Your task to perform on an android device: Search for vegetarian restaurants on Maps Image 0: 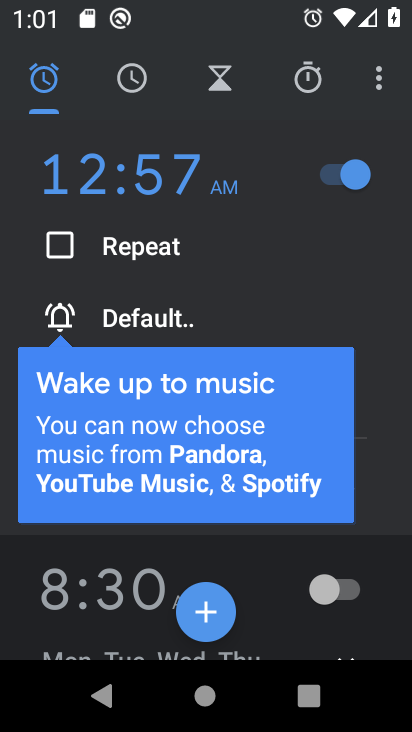
Step 0: press home button
Your task to perform on an android device: Search for vegetarian restaurants on Maps Image 1: 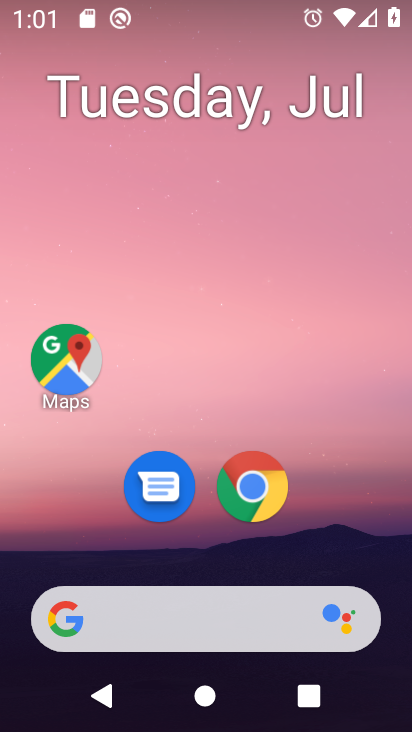
Step 1: drag from (378, 555) to (376, 133)
Your task to perform on an android device: Search for vegetarian restaurants on Maps Image 2: 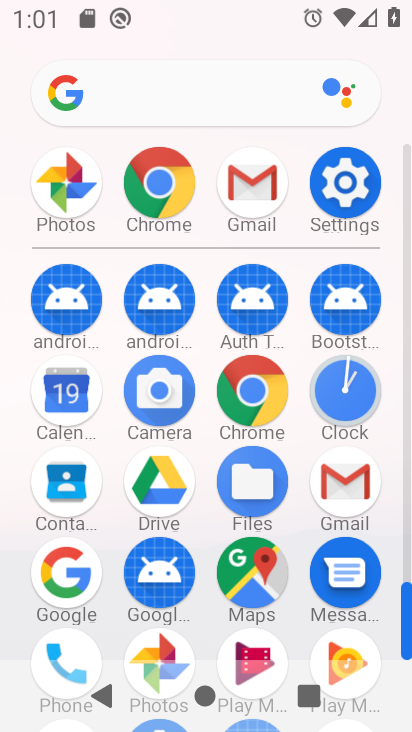
Step 2: click (270, 568)
Your task to perform on an android device: Search for vegetarian restaurants on Maps Image 3: 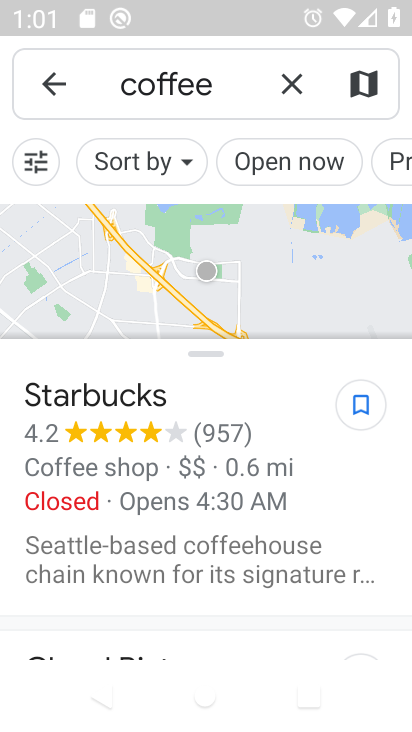
Step 3: press back button
Your task to perform on an android device: Search for vegetarian restaurants on Maps Image 4: 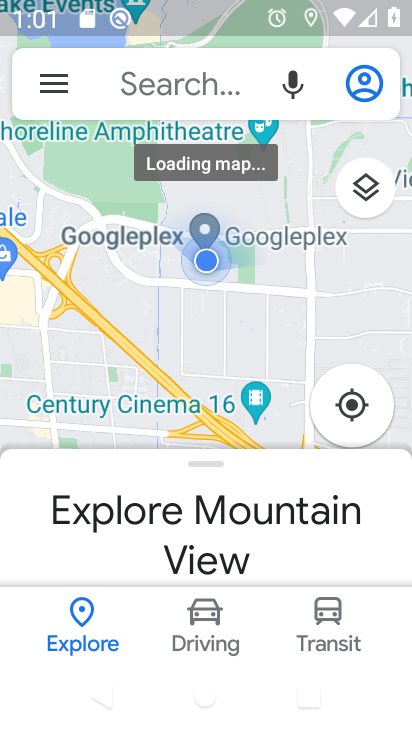
Step 4: click (185, 83)
Your task to perform on an android device: Search for vegetarian restaurants on Maps Image 5: 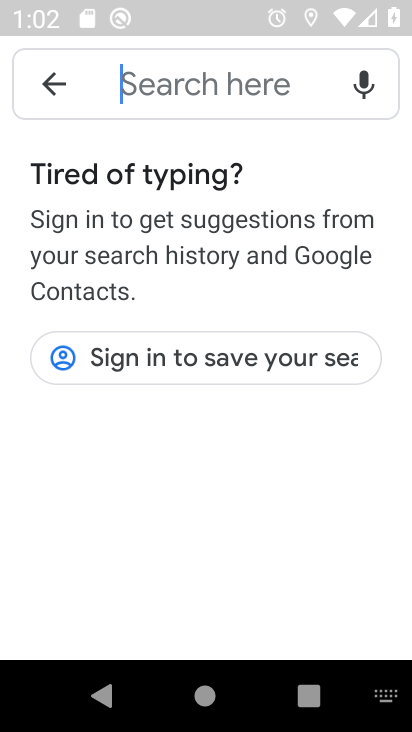
Step 5: type "vegetrain restaurants"
Your task to perform on an android device: Search for vegetarian restaurants on Maps Image 6: 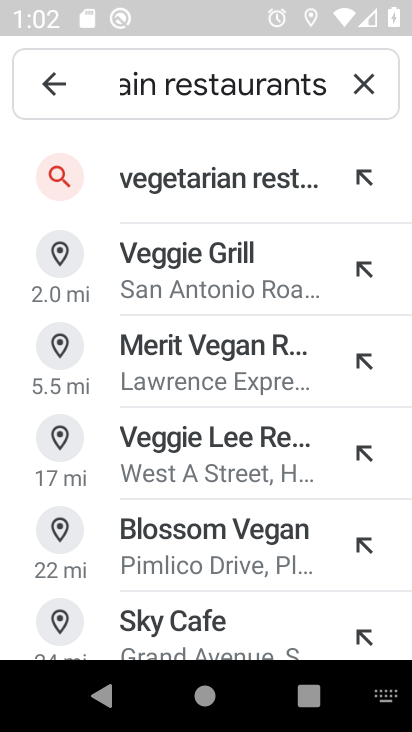
Step 6: click (284, 192)
Your task to perform on an android device: Search for vegetarian restaurants on Maps Image 7: 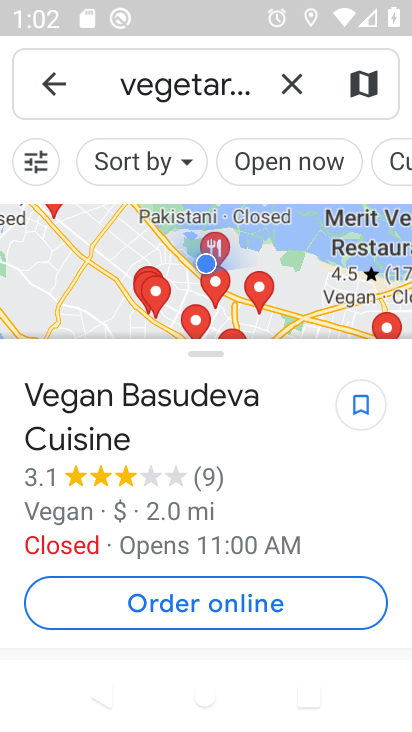
Step 7: task complete